Your task to perform on an android device: make emails show in primary in the gmail app Image 0: 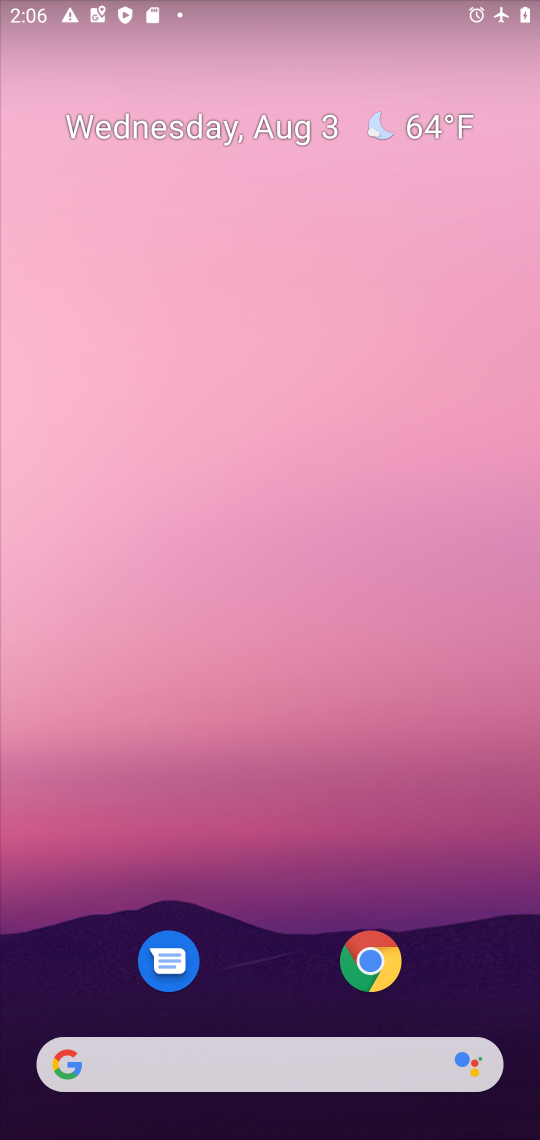
Step 0: drag from (291, 863) to (299, 16)
Your task to perform on an android device: make emails show in primary in the gmail app Image 1: 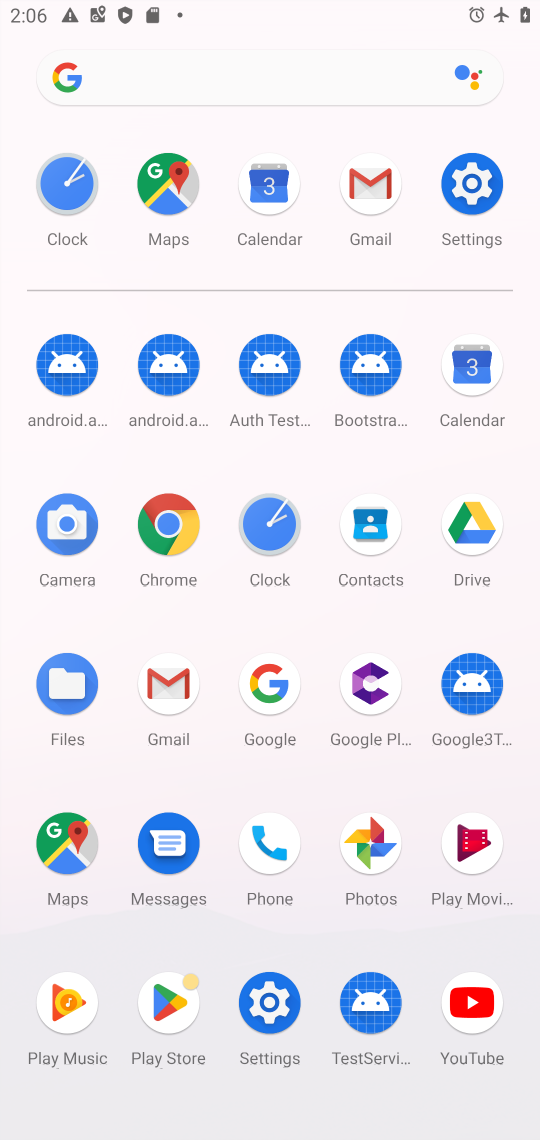
Step 1: click (367, 191)
Your task to perform on an android device: make emails show in primary in the gmail app Image 2: 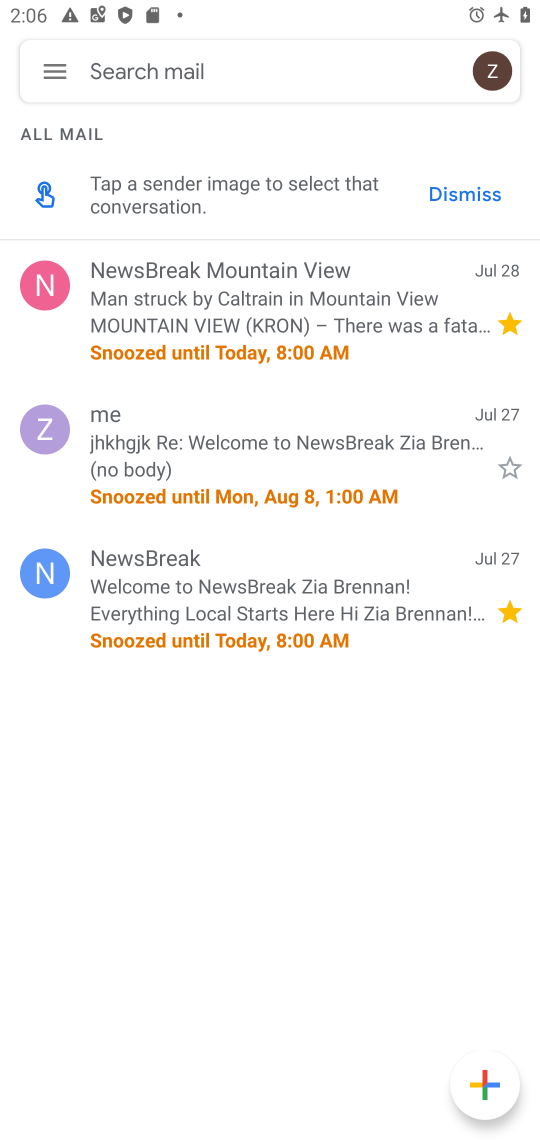
Step 2: click (53, 71)
Your task to perform on an android device: make emails show in primary in the gmail app Image 3: 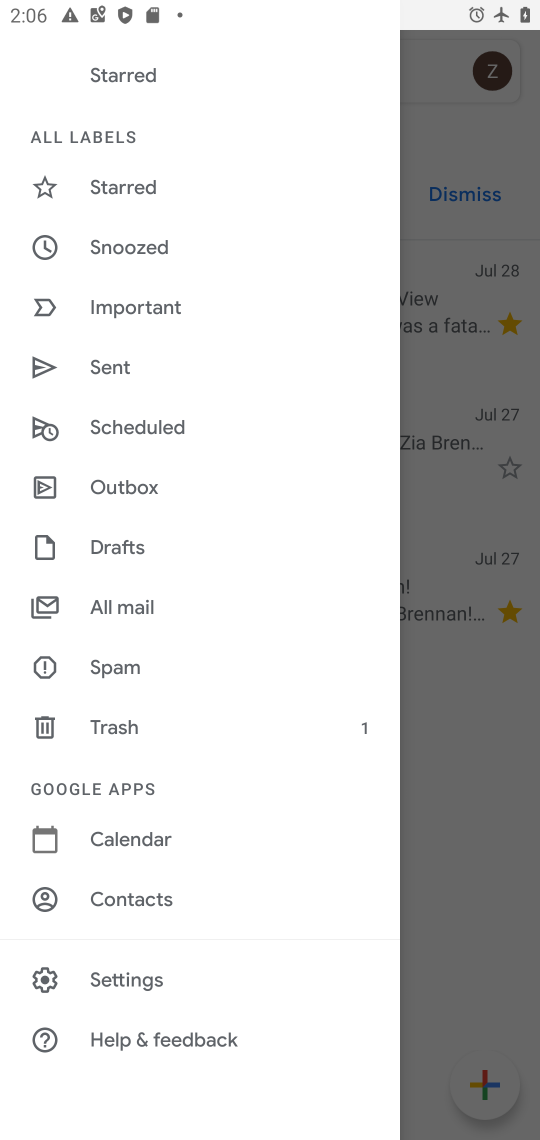
Step 3: click (104, 987)
Your task to perform on an android device: make emails show in primary in the gmail app Image 4: 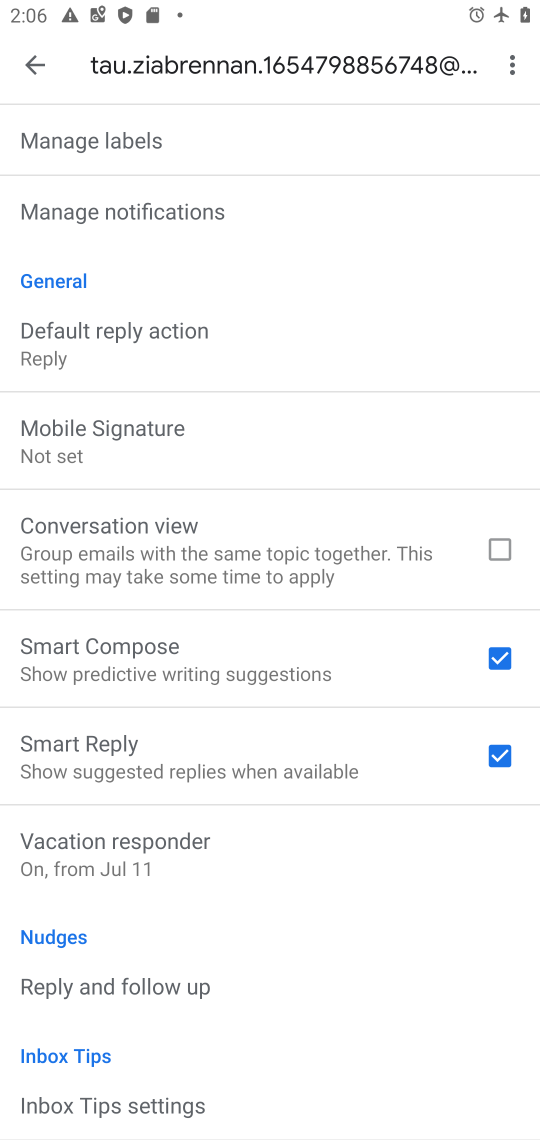
Step 4: task complete